Your task to perform on an android device: Open settings Image 0: 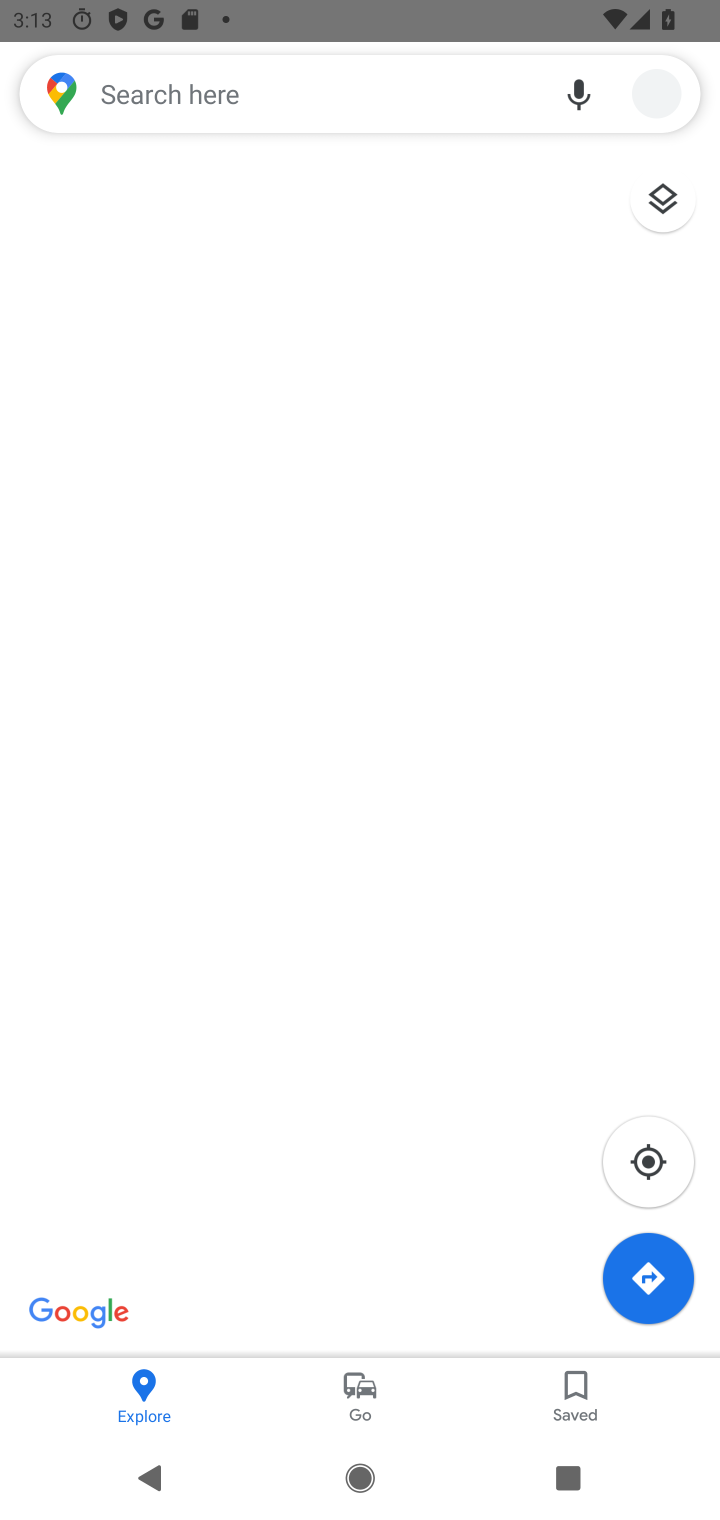
Step 0: press back button
Your task to perform on an android device: Open settings Image 1: 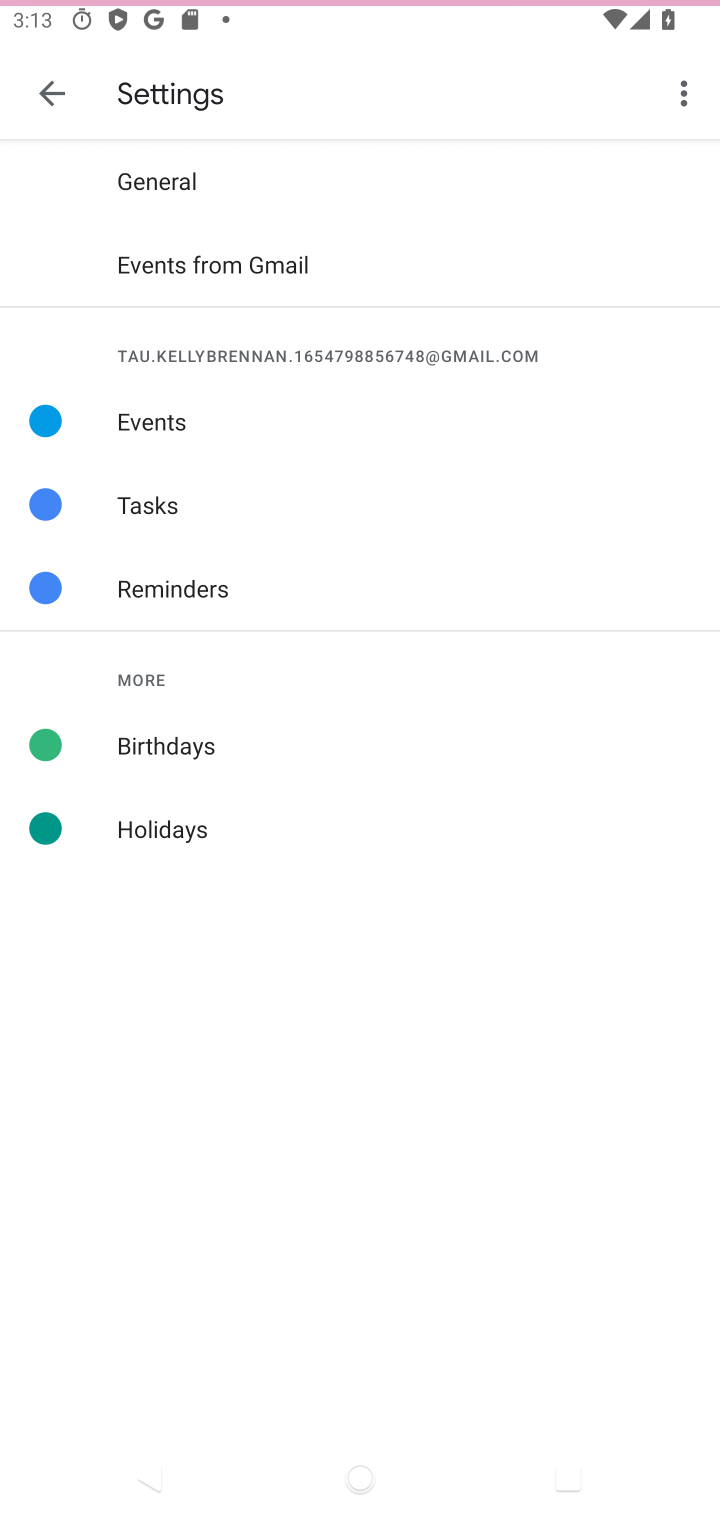
Step 1: press back button
Your task to perform on an android device: Open settings Image 2: 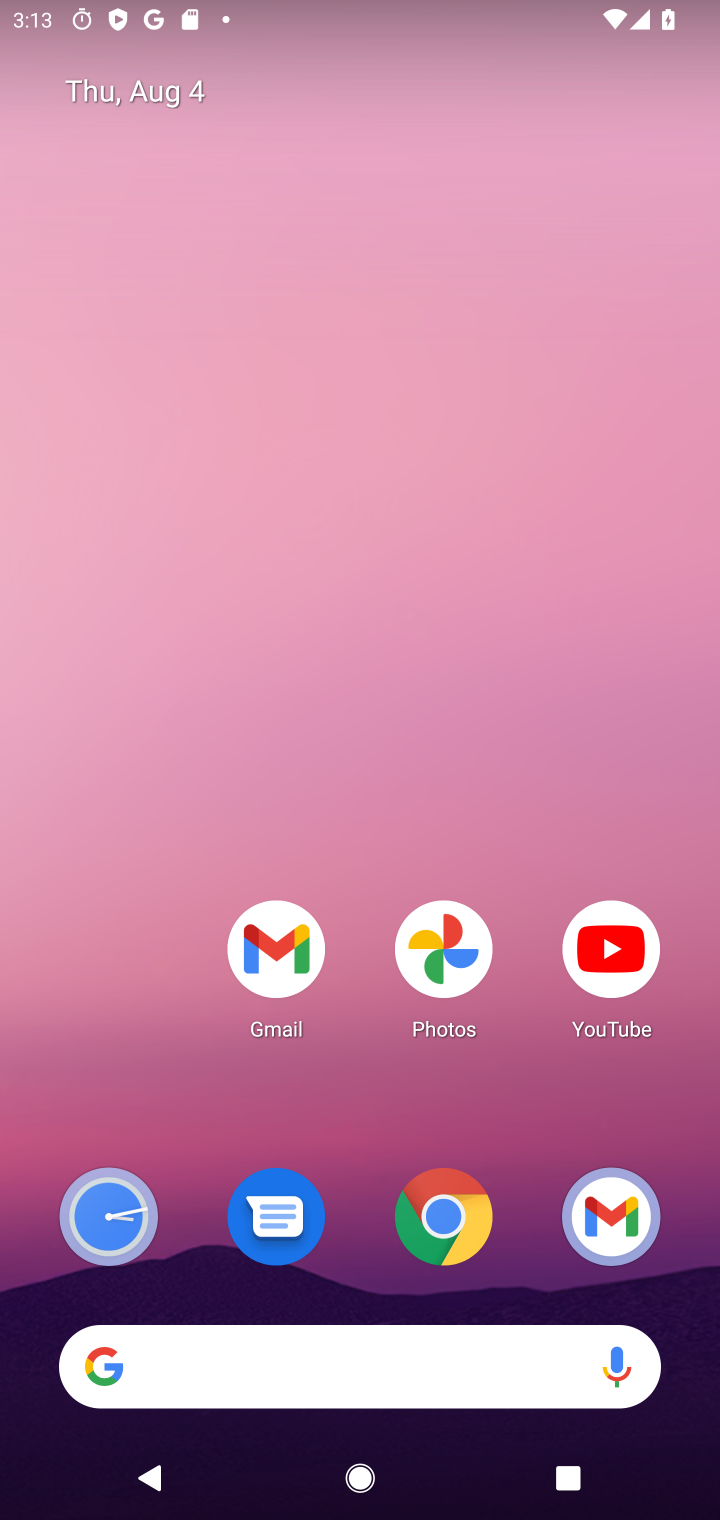
Step 2: press back button
Your task to perform on an android device: Open settings Image 3: 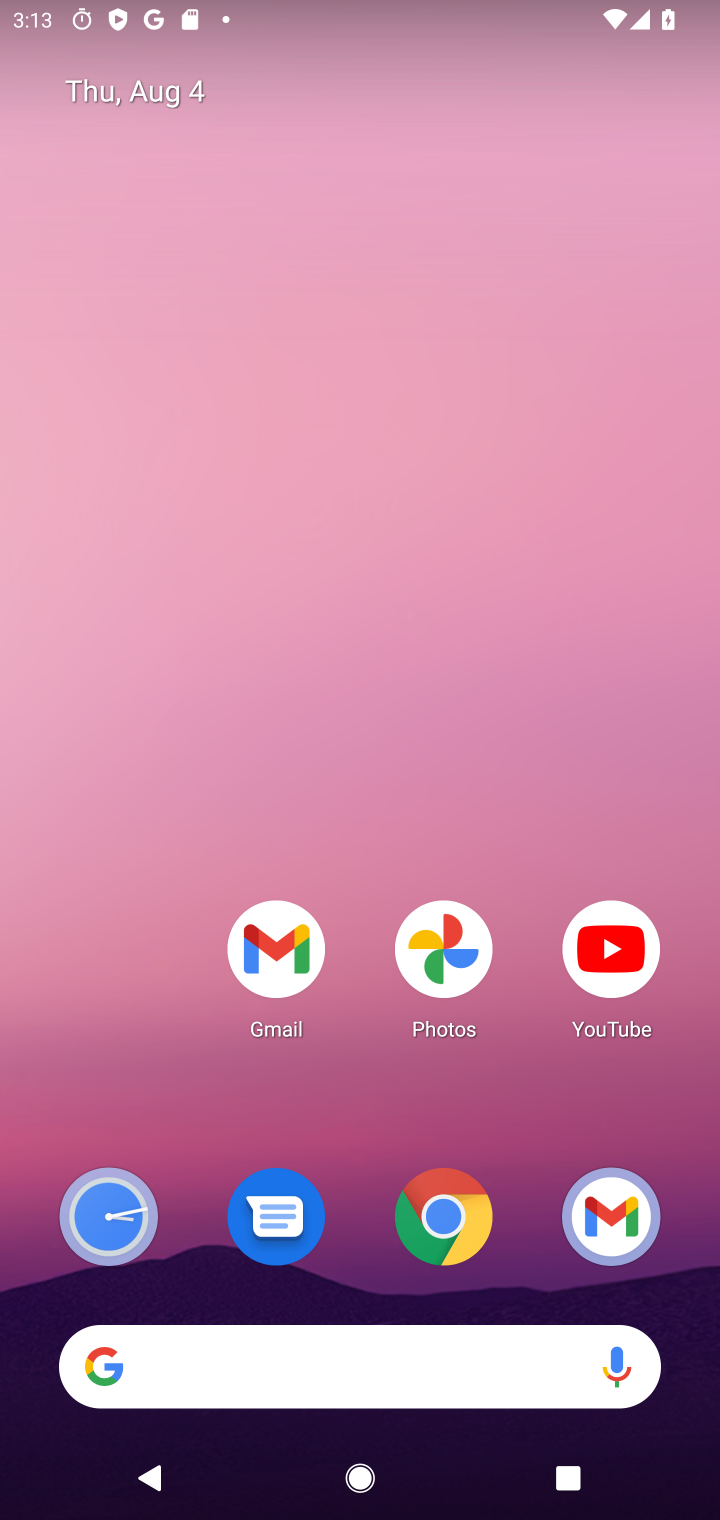
Step 3: drag from (179, 660) to (320, 22)
Your task to perform on an android device: Open settings Image 4: 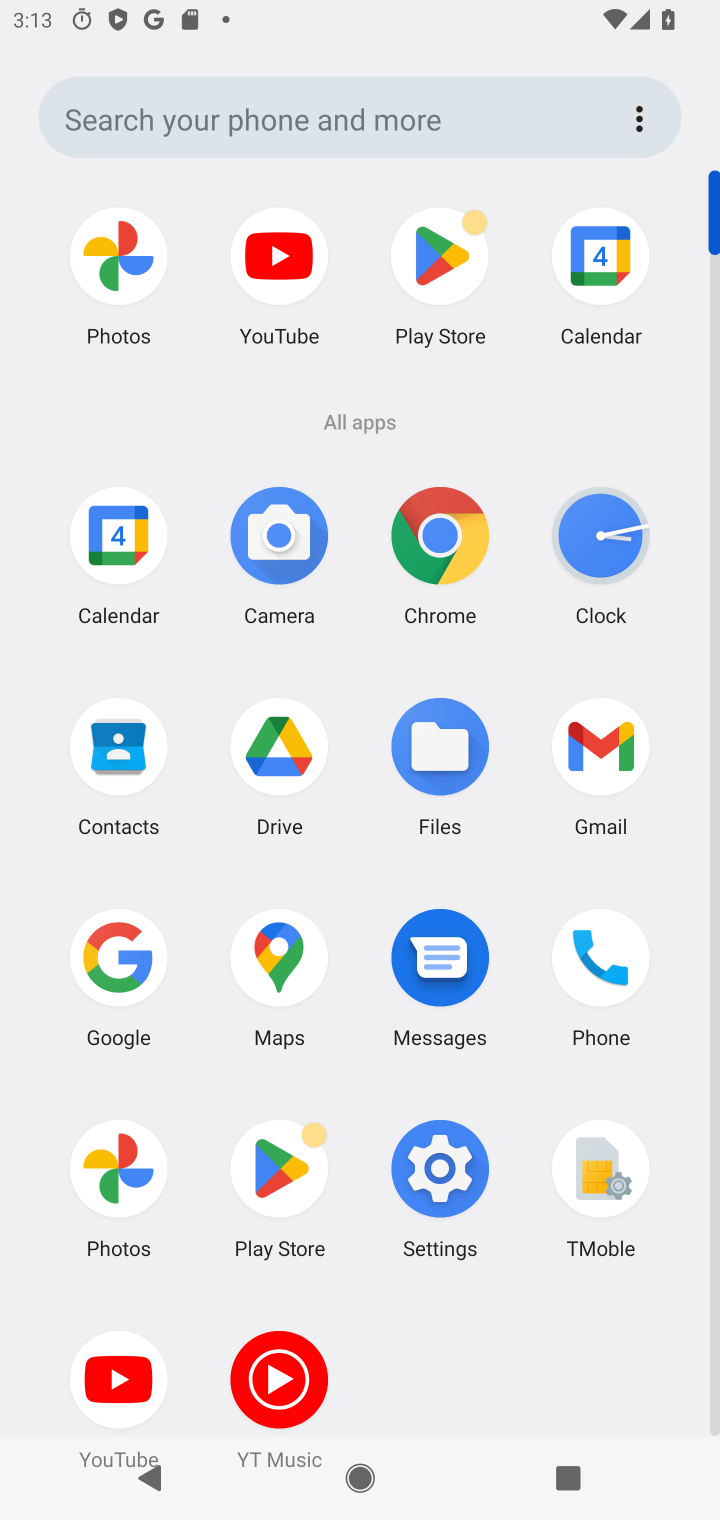
Step 4: click (445, 1157)
Your task to perform on an android device: Open settings Image 5: 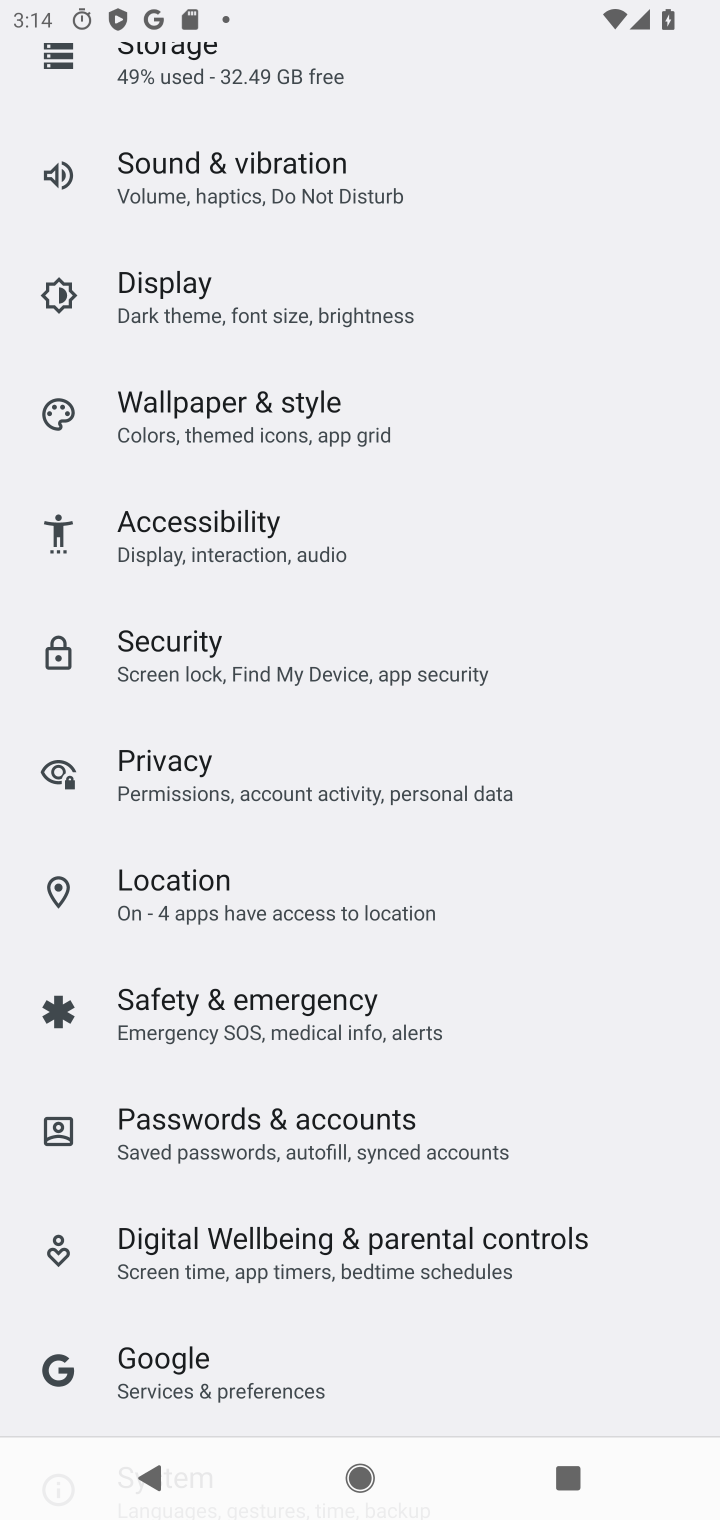
Step 5: task complete